Your task to perform on an android device: Open network settings Image 0: 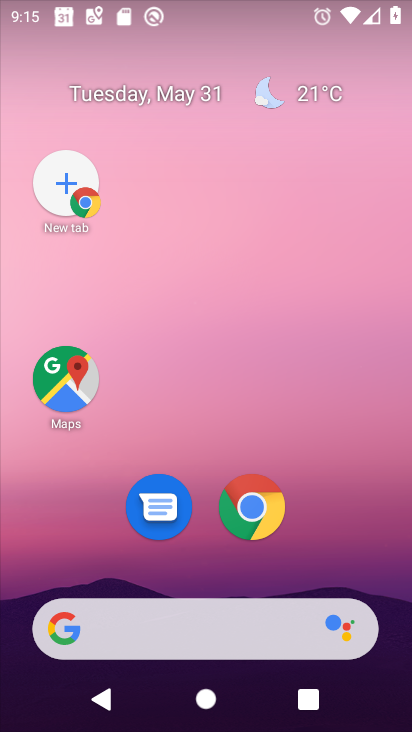
Step 0: drag from (260, 688) to (177, 143)
Your task to perform on an android device: Open network settings Image 1: 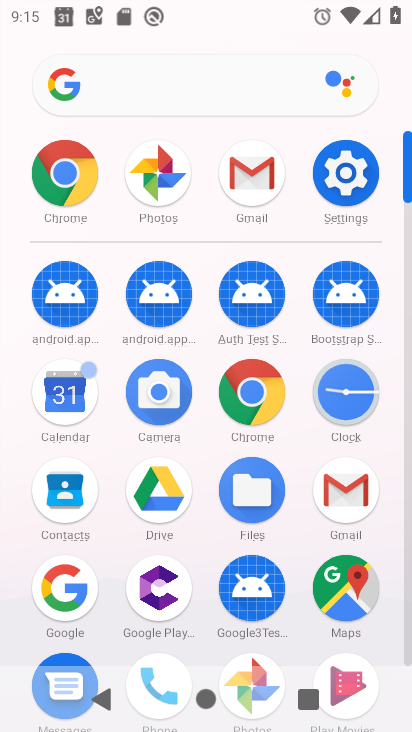
Step 1: click (342, 180)
Your task to perform on an android device: Open network settings Image 2: 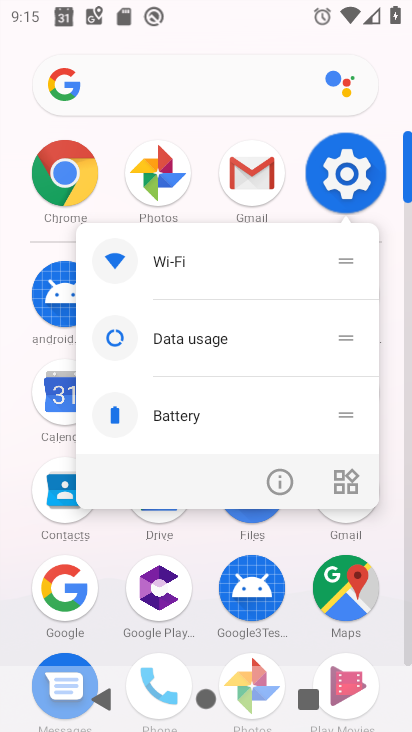
Step 2: click (342, 180)
Your task to perform on an android device: Open network settings Image 3: 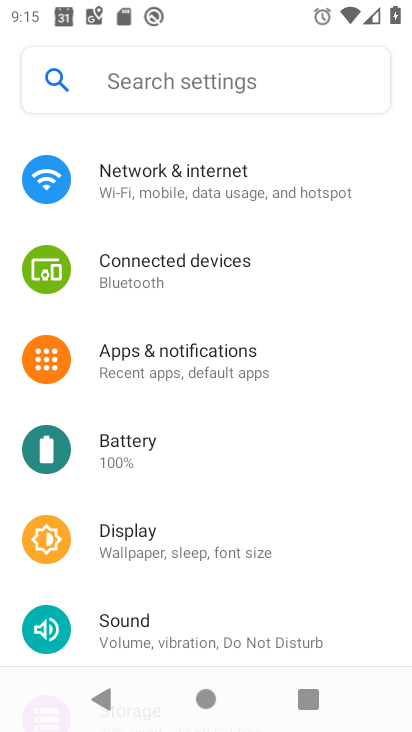
Step 3: click (192, 343)
Your task to perform on an android device: Open network settings Image 4: 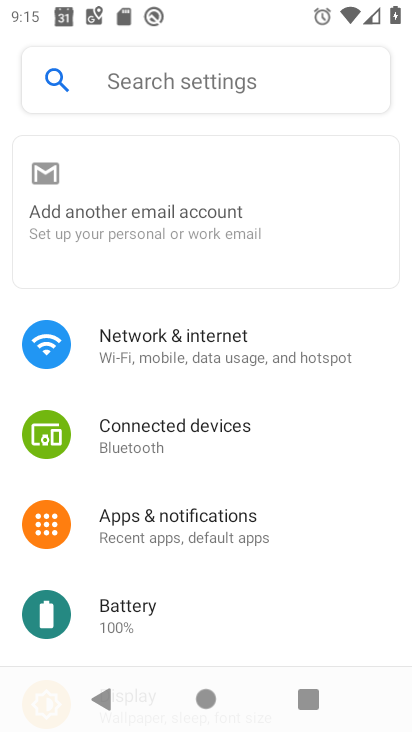
Step 4: click (194, 339)
Your task to perform on an android device: Open network settings Image 5: 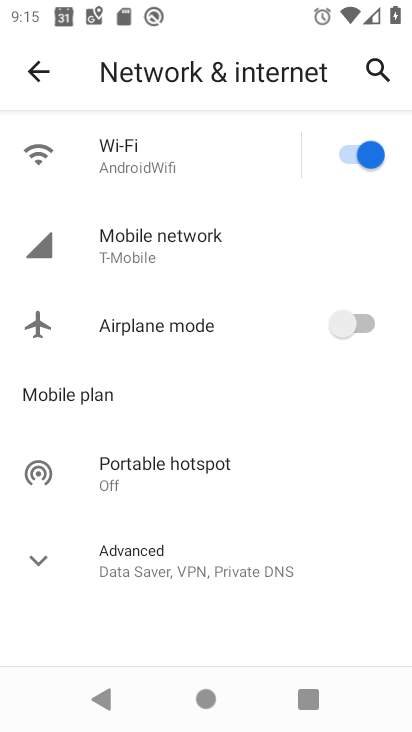
Step 5: task complete